Your task to perform on an android device: install app "YouTube Kids" Image 0: 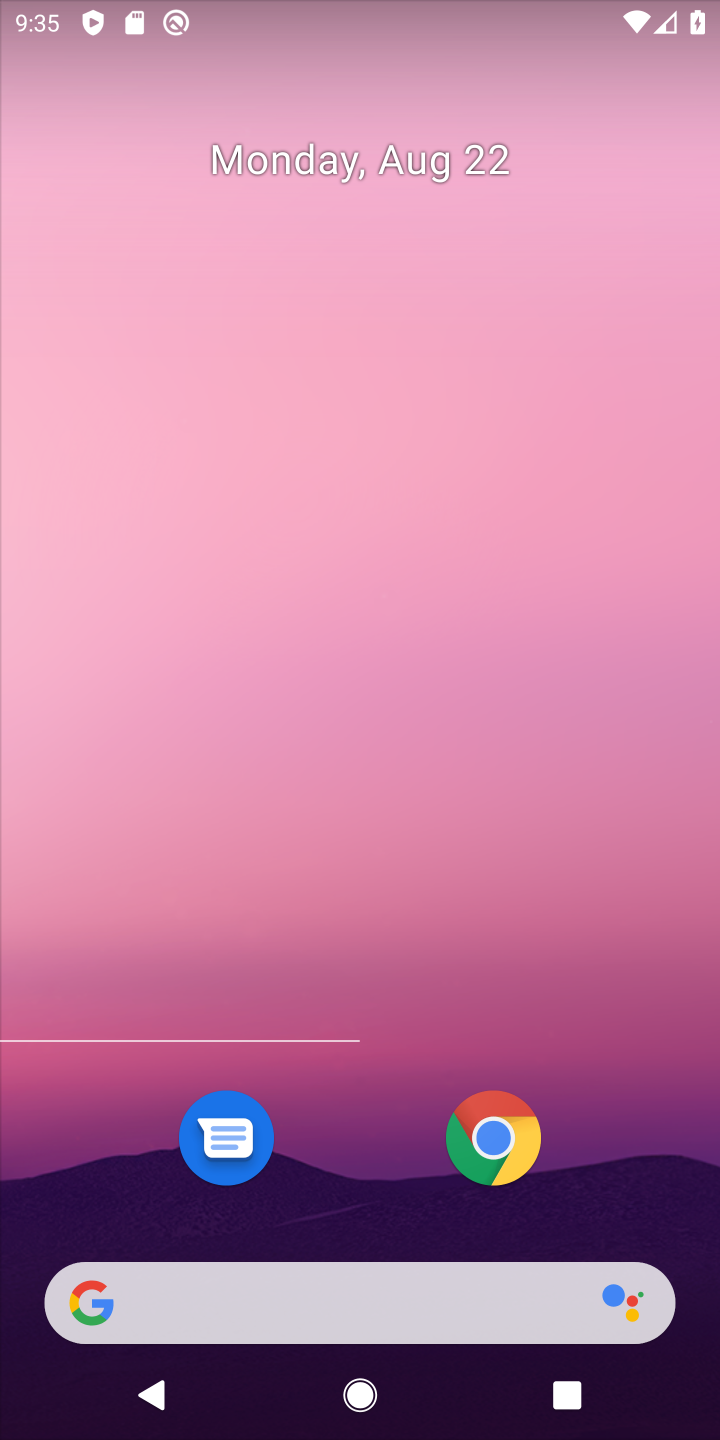
Step 0: press home button
Your task to perform on an android device: install app "YouTube Kids" Image 1: 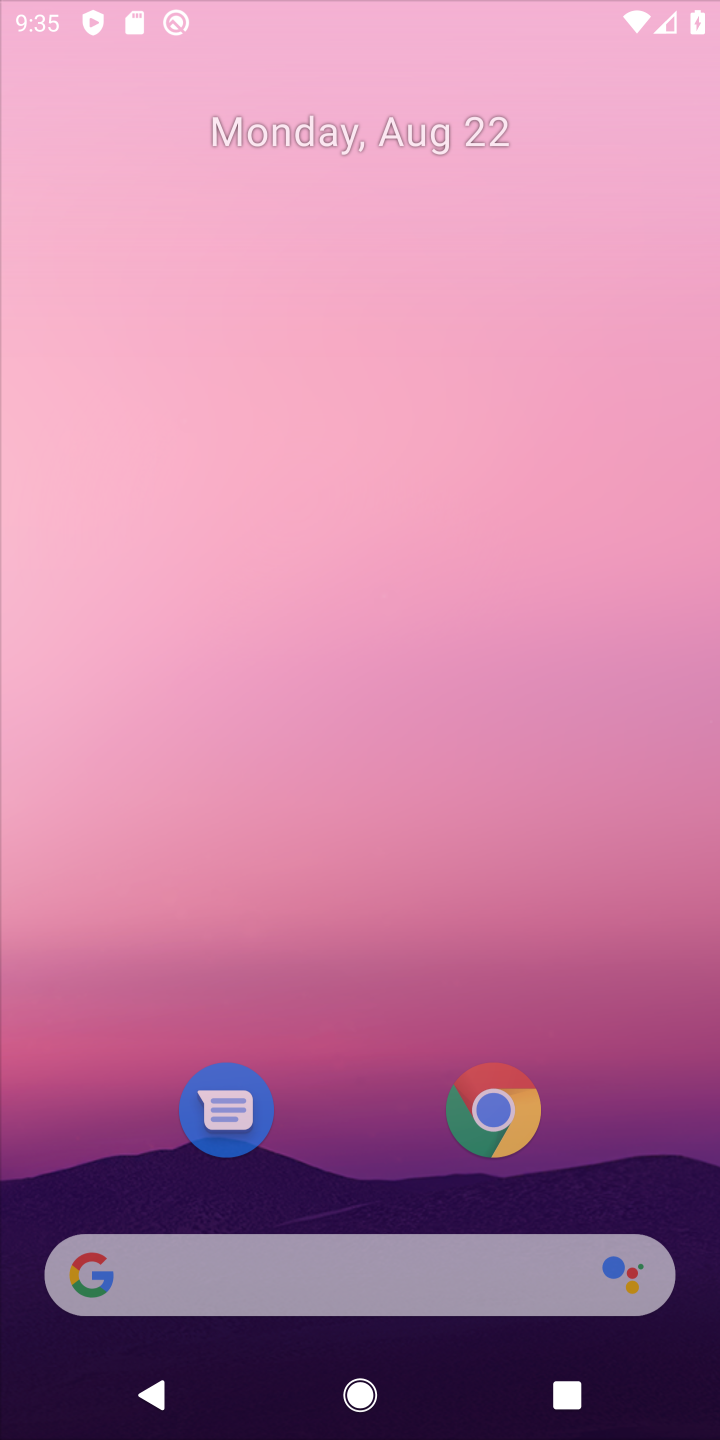
Step 1: press home button
Your task to perform on an android device: install app "YouTube Kids" Image 2: 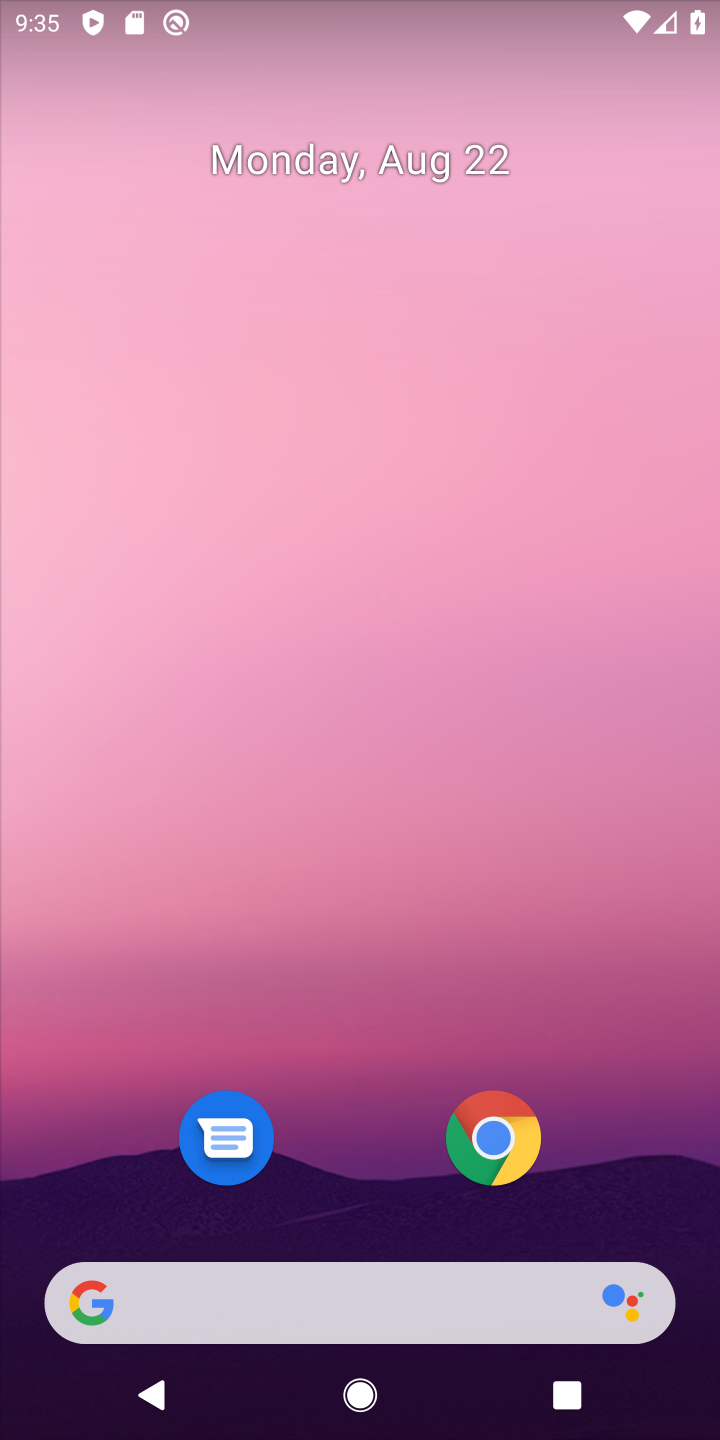
Step 2: drag from (369, 1181) to (443, 2)
Your task to perform on an android device: install app "YouTube Kids" Image 3: 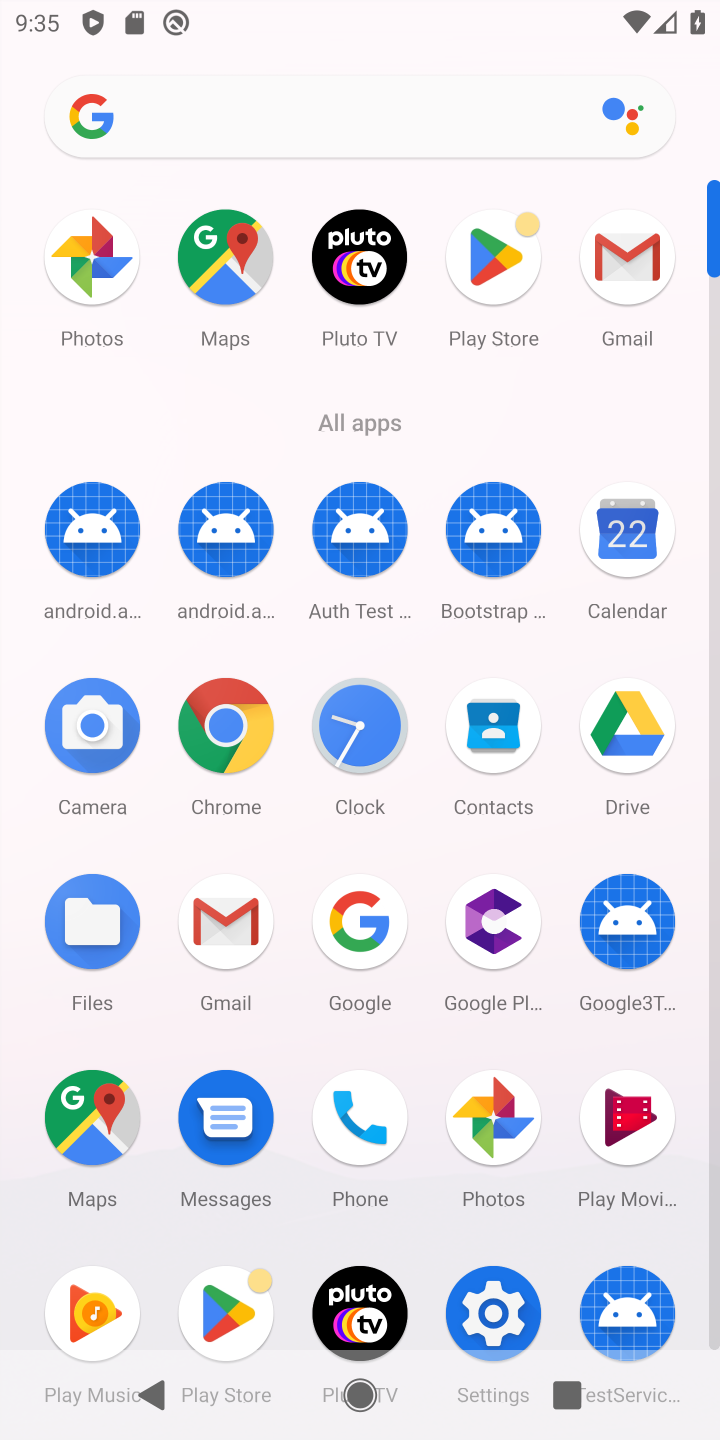
Step 3: click (486, 256)
Your task to perform on an android device: install app "YouTube Kids" Image 4: 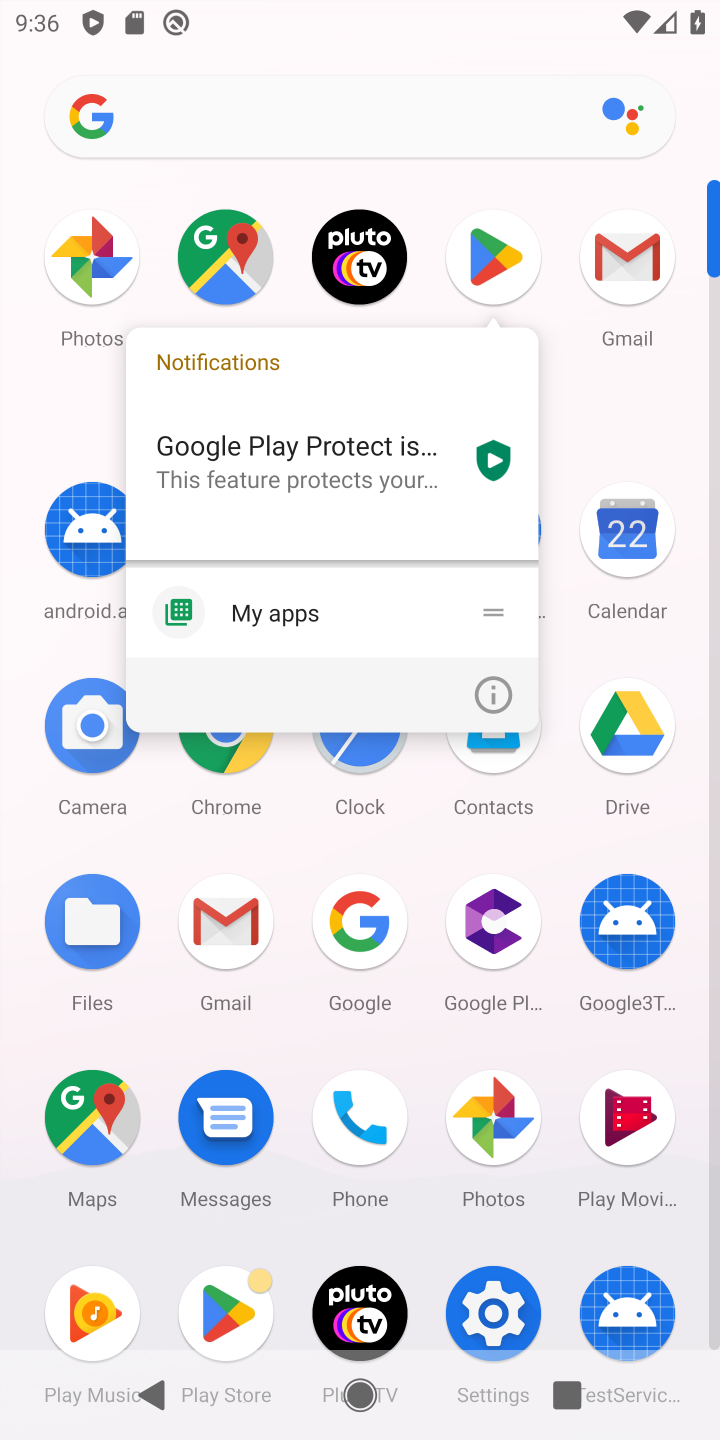
Step 4: click (486, 256)
Your task to perform on an android device: install app "YouTube Kids" Image 5: 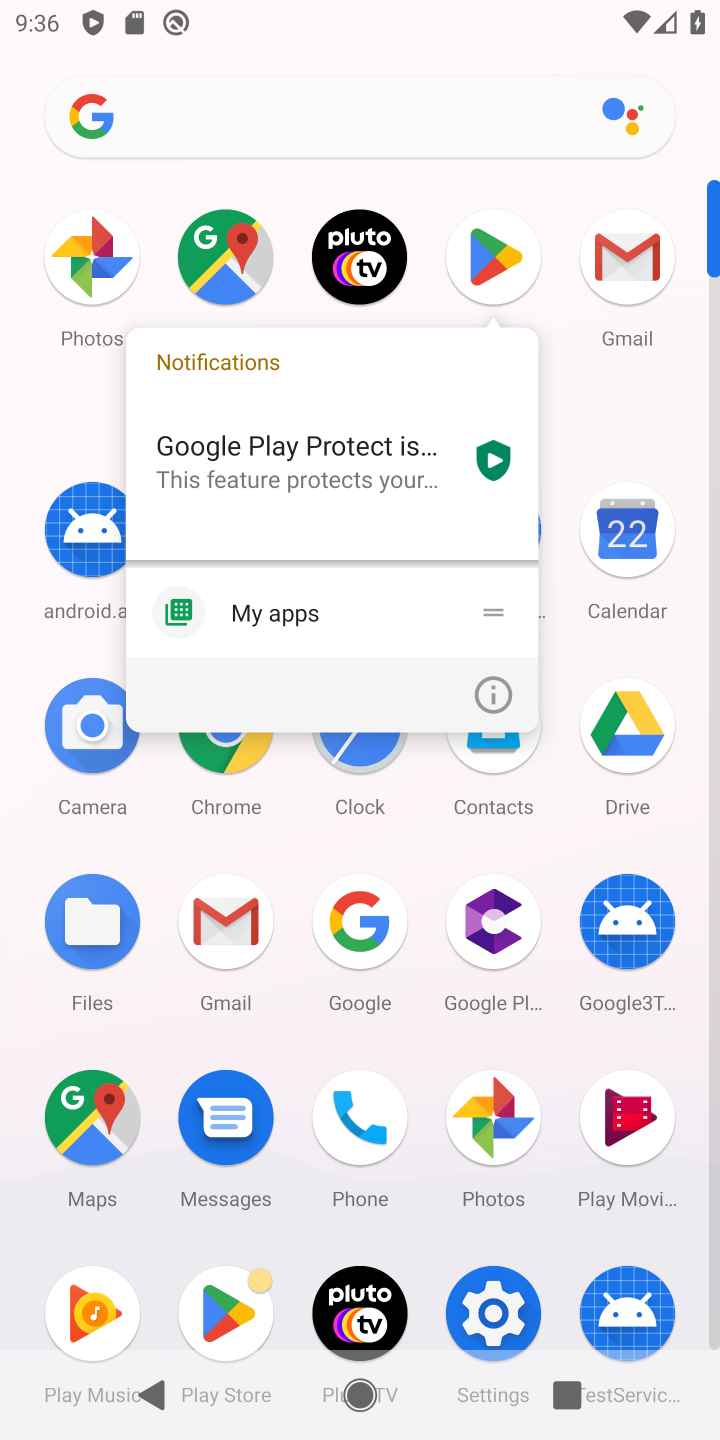
Step 5: click (485, 241)
Your task to perform on an android device: install app "YouTube Kids" Image 6: 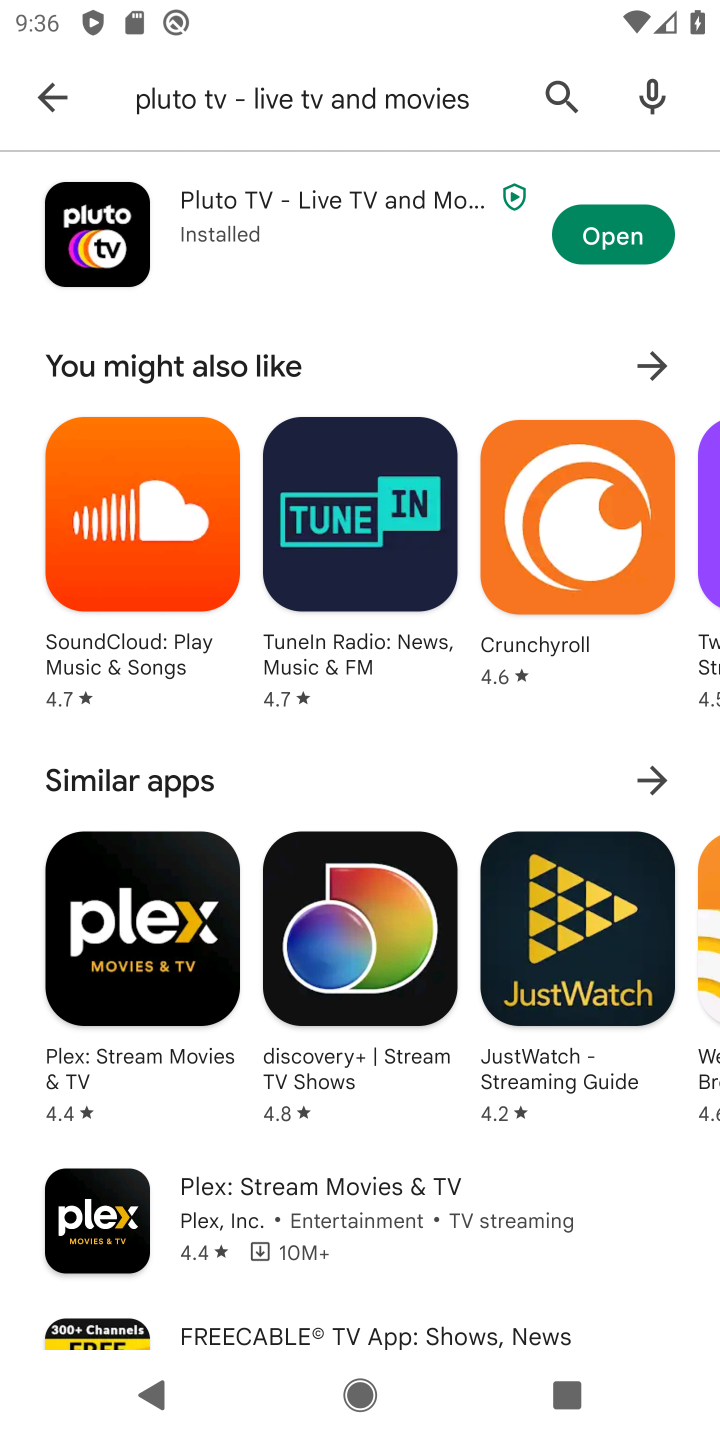
Step 6: click (548, 97)
Your task to perform on an android device: install app "YouTube Kids" Image 7: 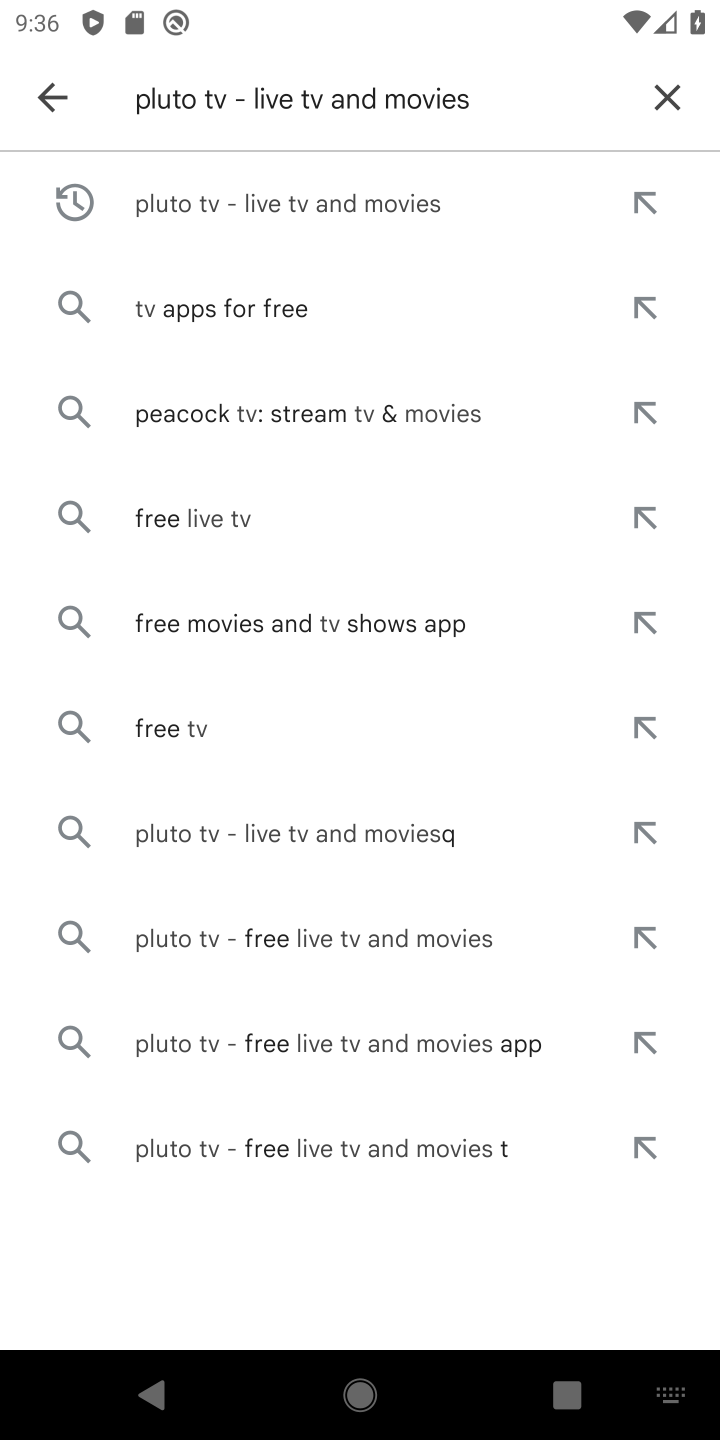
Step 7: click (663, 83)
Your task to perform on an android device: install app "YouTube Kids" Image 8: 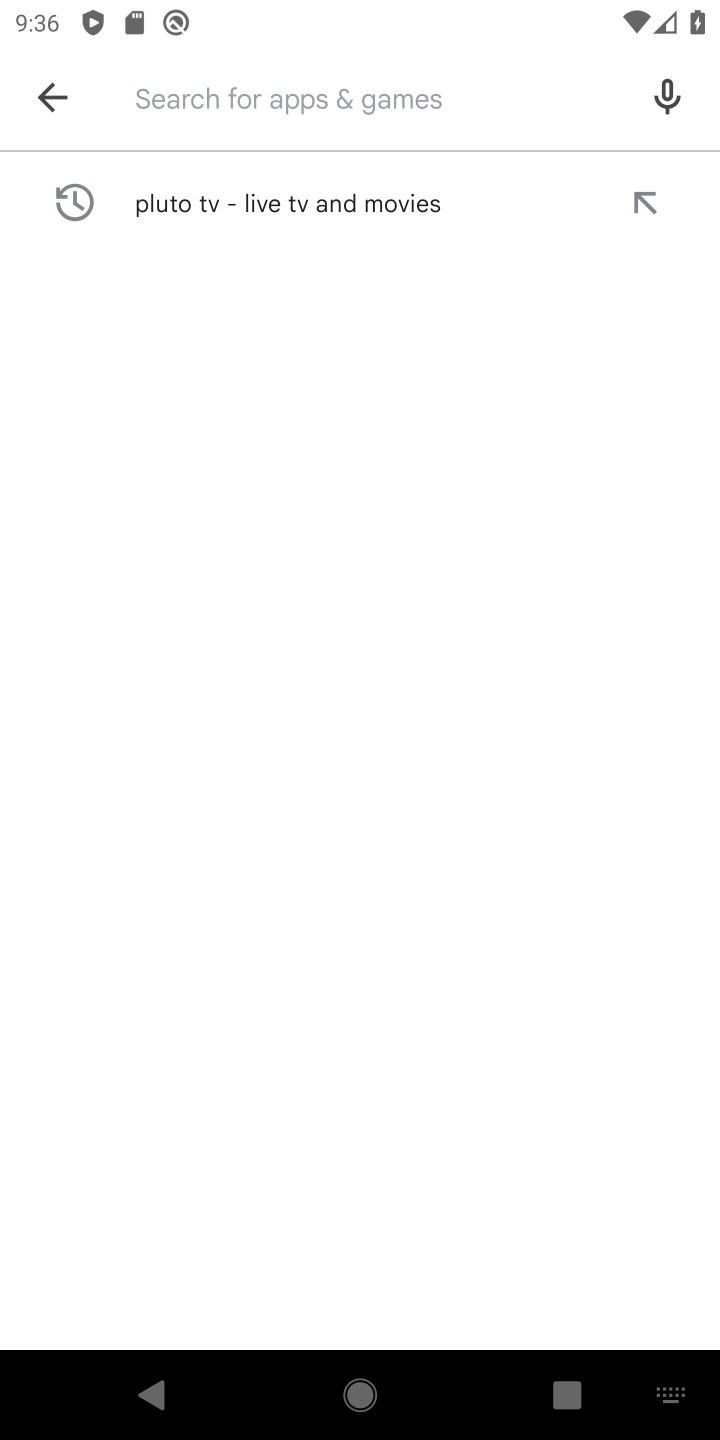
Step 8: type "YouTube Kids"
Your task to perform on an android device: install app "YouTube Kids" Image 9: 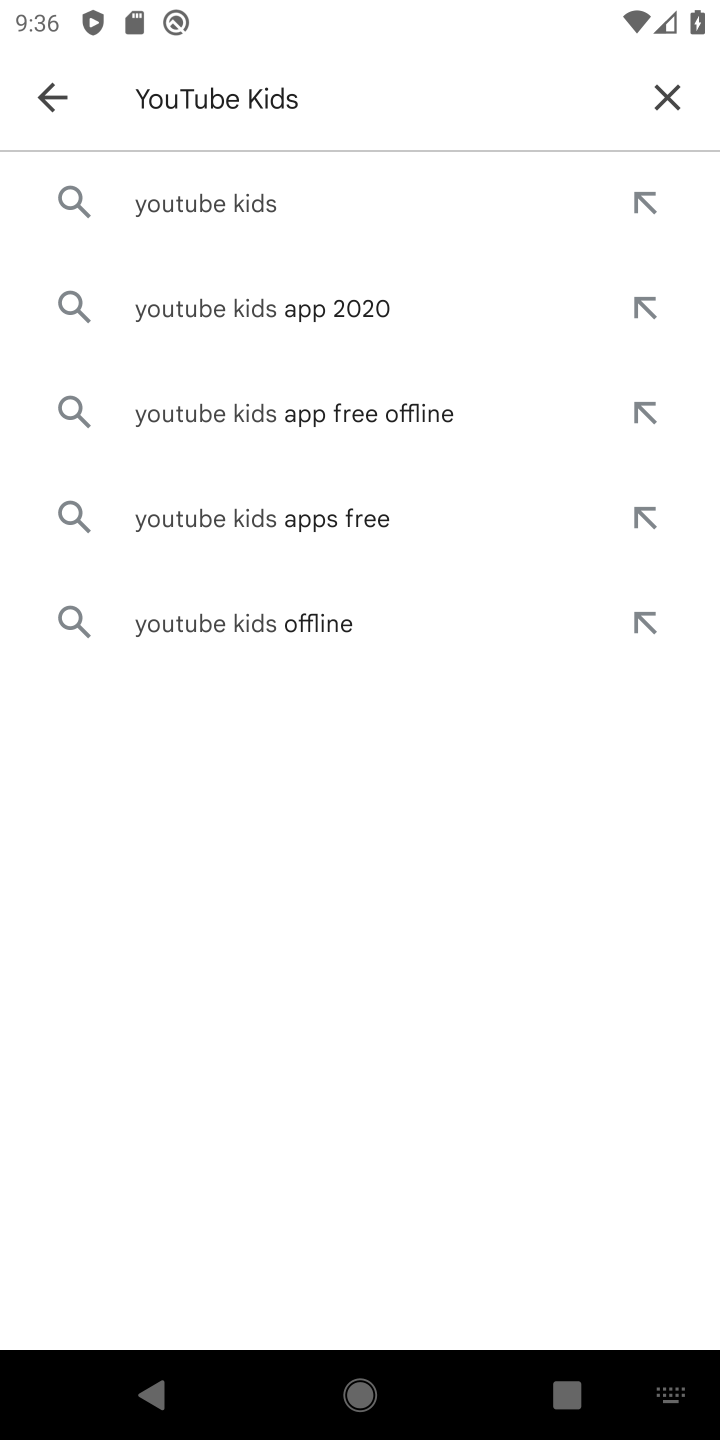
Step 9: click (253, 216)
Your task to perform on an android device: install app "YouTube Kids" Image 10: 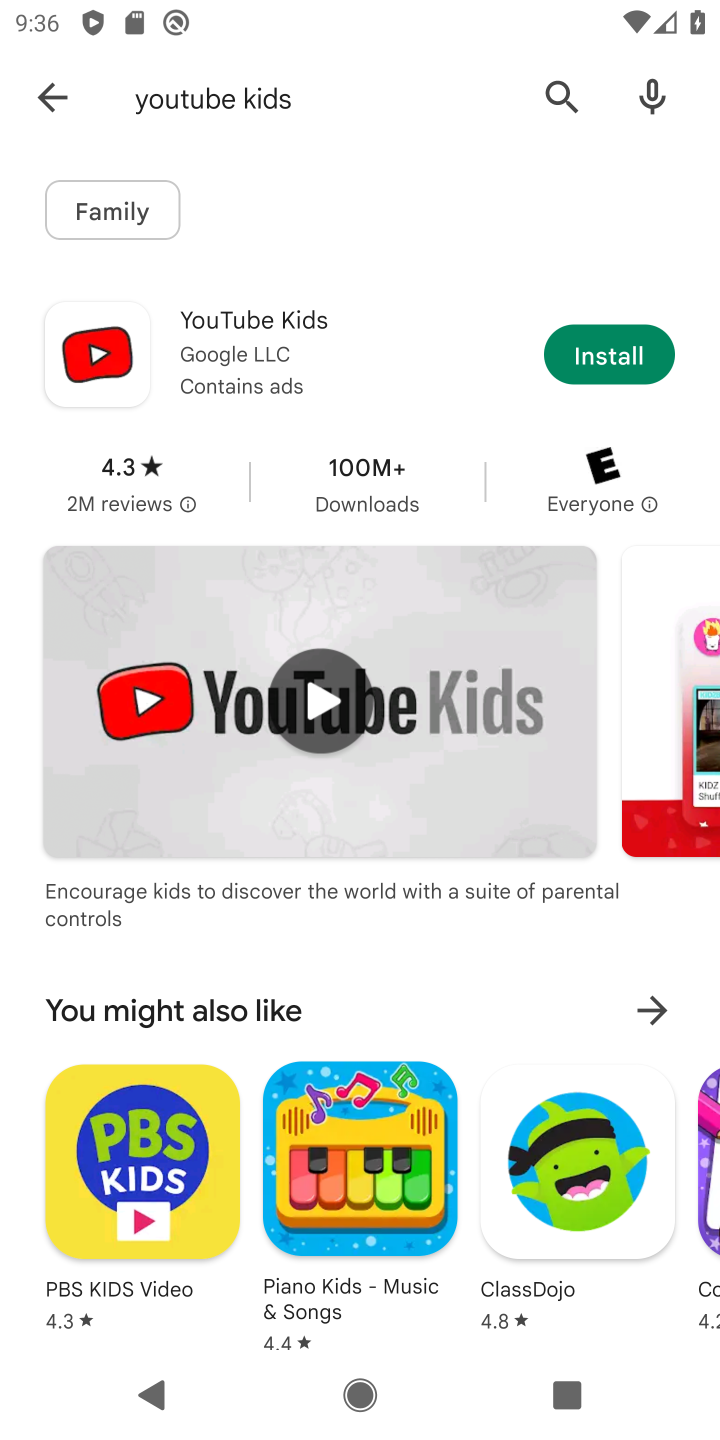
Step 10: click (620, 340)
Your task to perform on an android device: install app "YouTube Kids" Image 11: 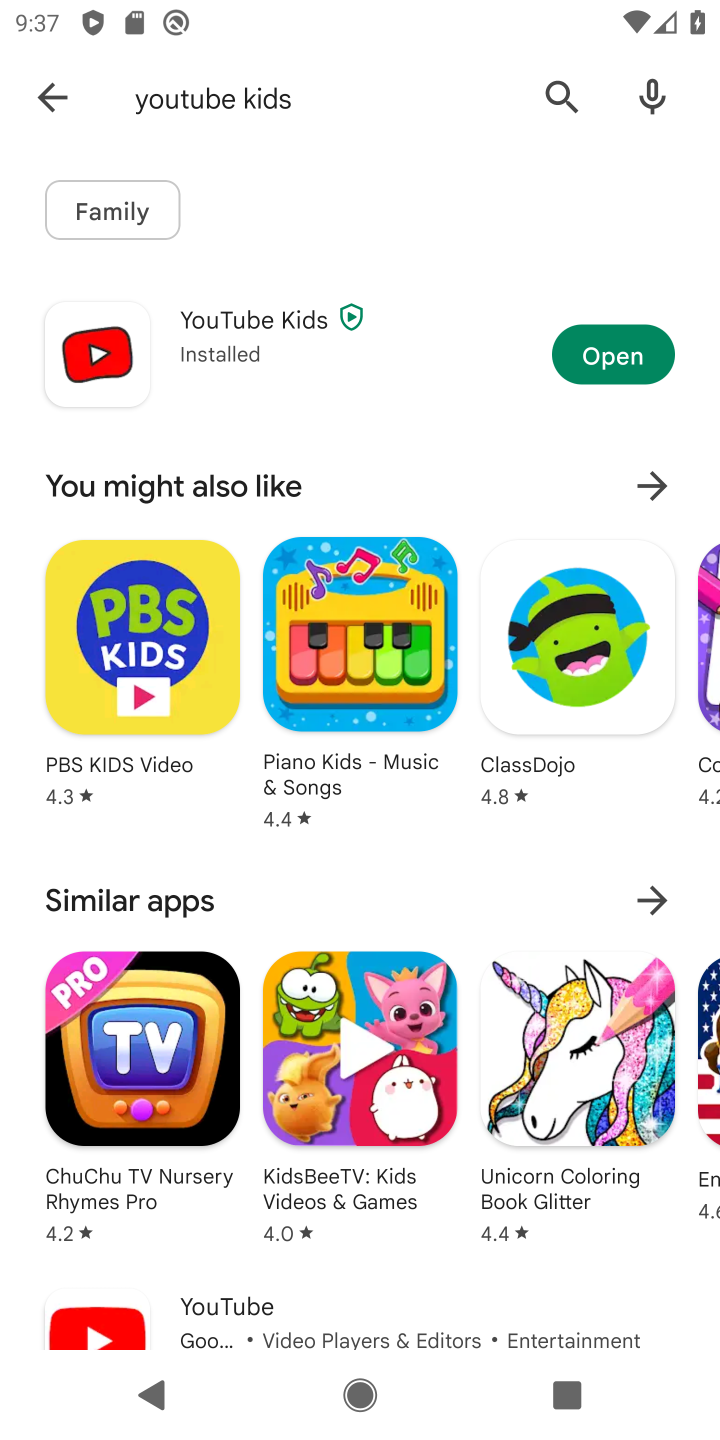
Step 11: click (597, 360)
Your task to perform on an android device: install app "YouTube Kids" Image 12: 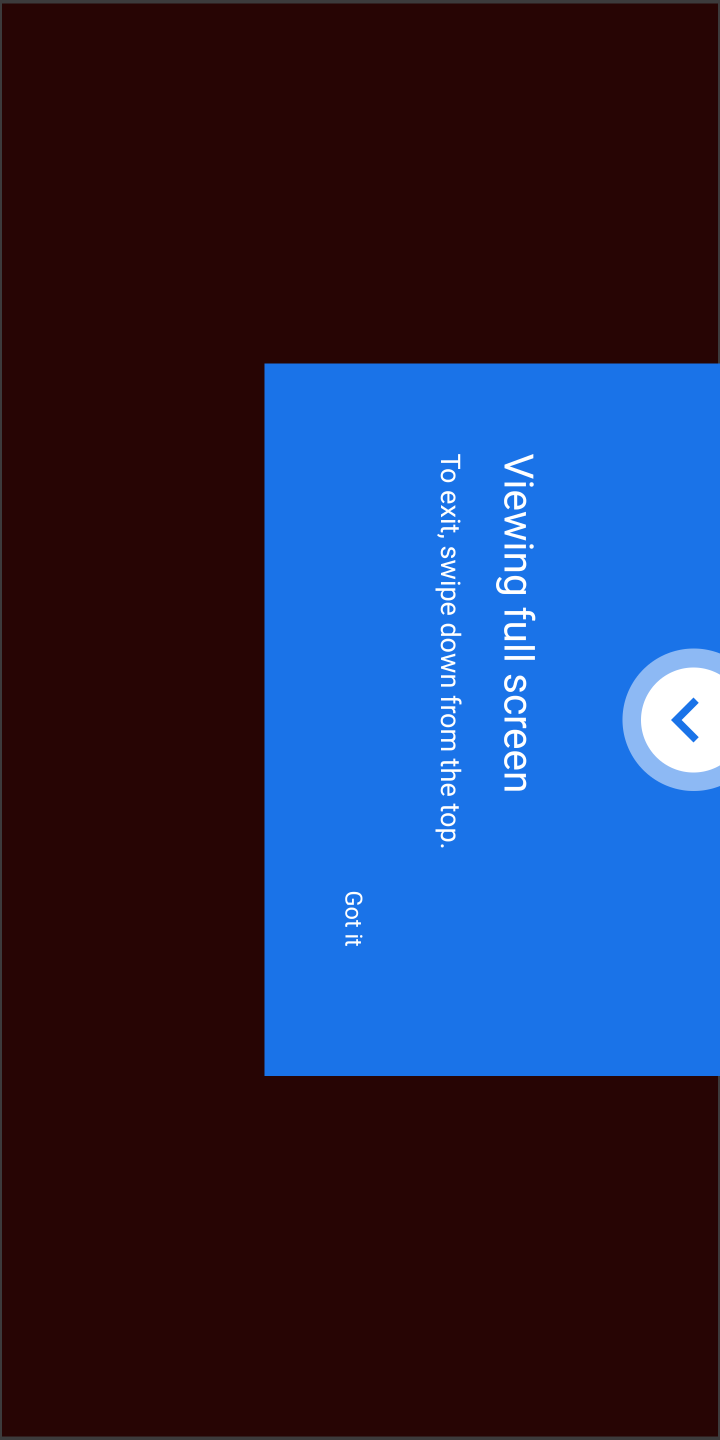
Step 12: click (360, 917)
Your task to perform on an android device: install app "YouTube Kids" Image 13: 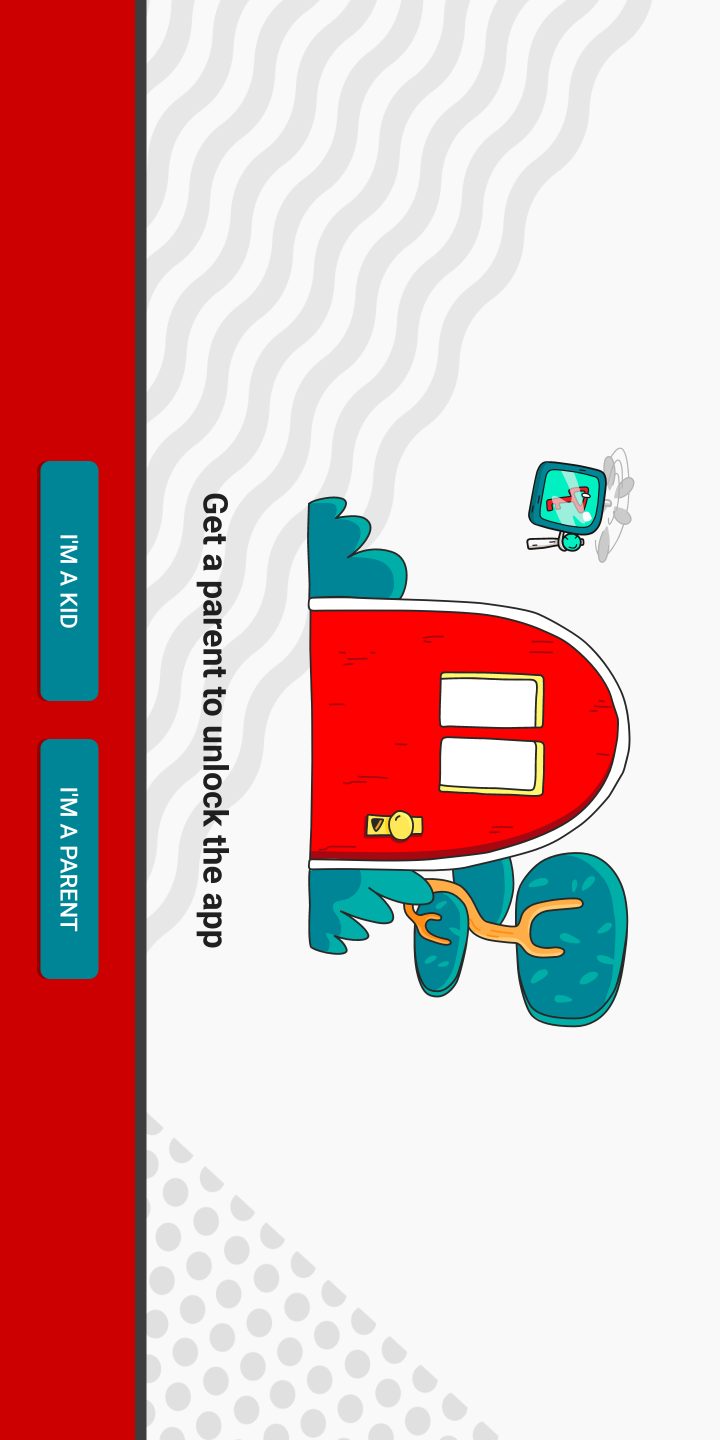
Step 13: click (61, 859)
Your task to perform on an android device: install app "YouTube Kids" Image 14: 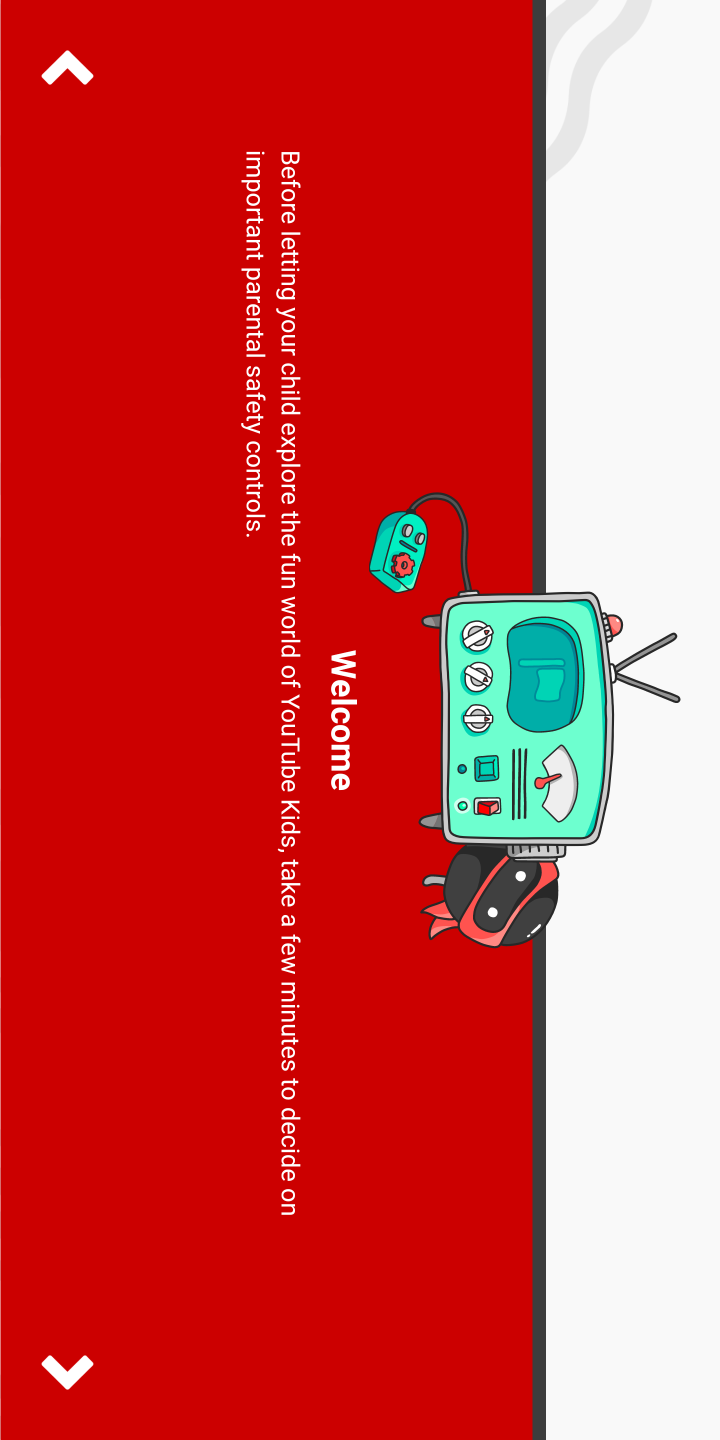
Step 14: click (49, 1386)
Your task to perform on an android device: install app "YouTube Kids" Image 15: 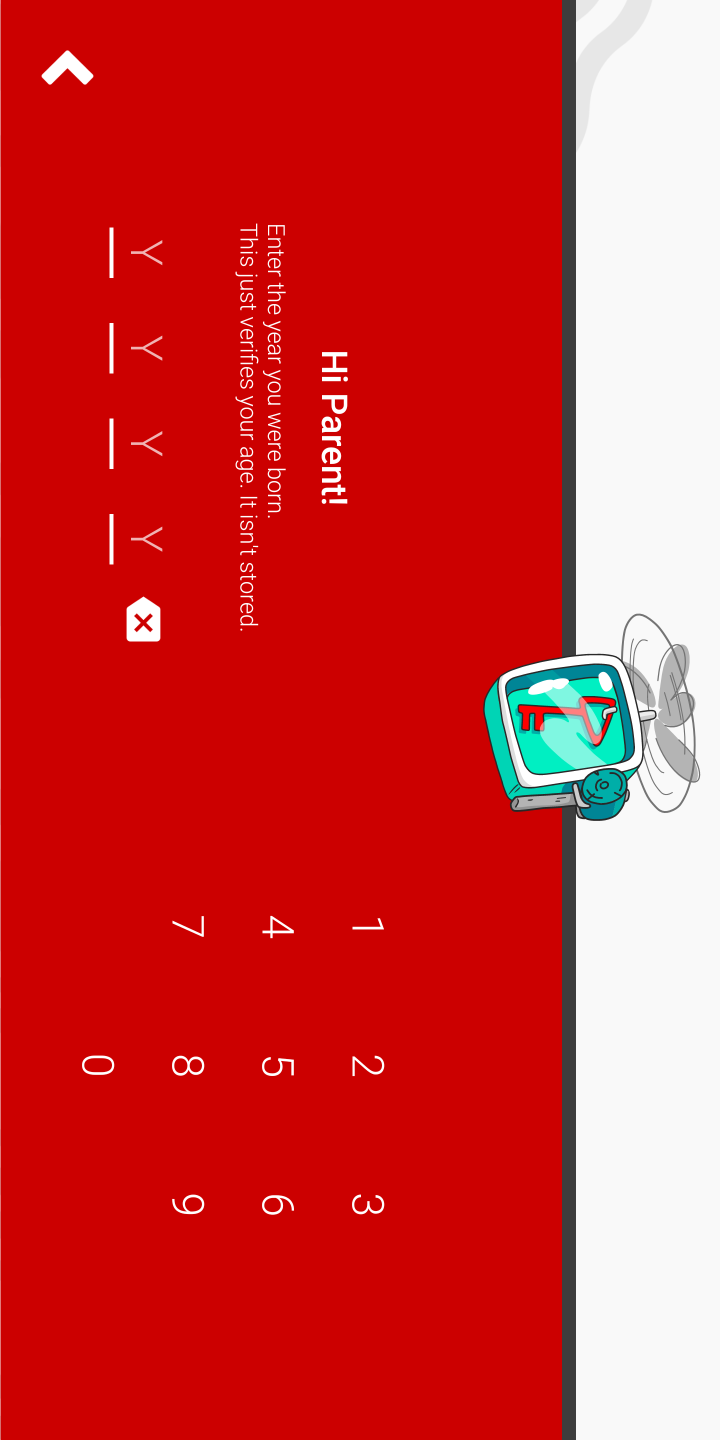
Step 15: task complete